Your task to perform on an android device: search for starred emails in the gmail app Image 0: 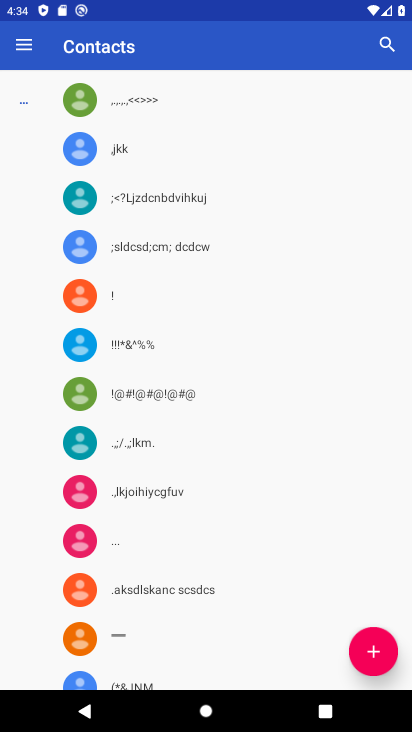
Step 0: drag from (221, 606) to (150, 229)
Your task to perform on an android device: search for starred emails in the gmail app Image 1: 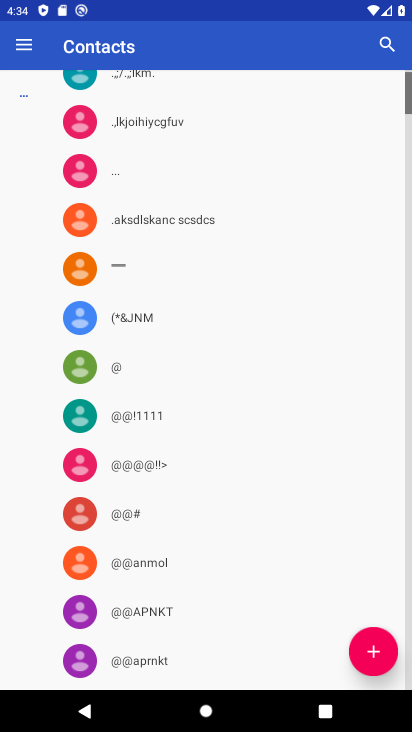
Step 1: press home button
Your task to perform on an android device: search for starred emails in the gmail app Image 2: 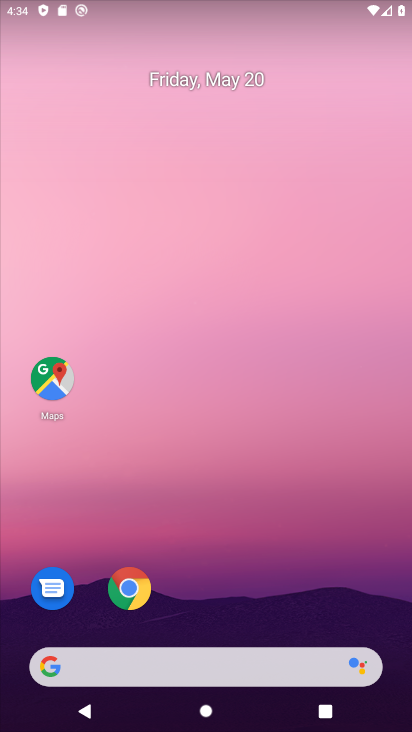
Step 2: drag from (216, 626) to (164, 164)
Your task to perform on an android device: search for starred emails in the gmail app Image 3: 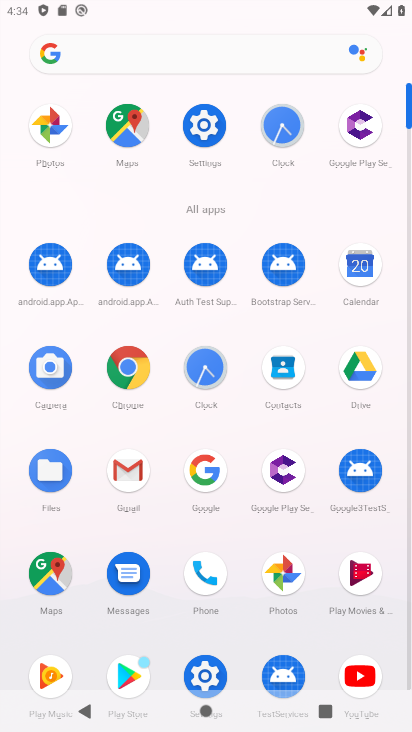
Step 3: click (365, 678)
Your task to perform on an android device: search for starred emails in the gmail app Image 4: 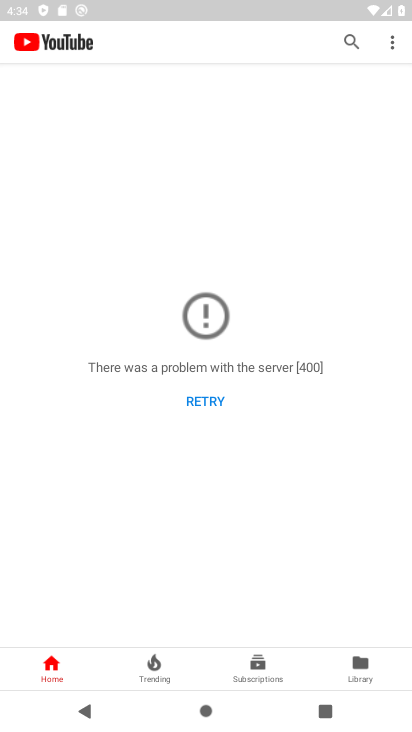
Step 4: press back button
Your task to perform on an android device: search for starred emails in the gmail app Image 5: 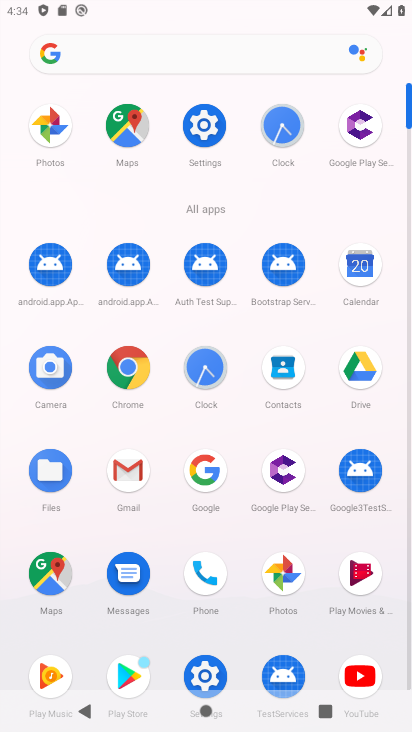
Step 5: press back button
Your task to perform on an android device: search for starred emails in the gmail app Image 6: 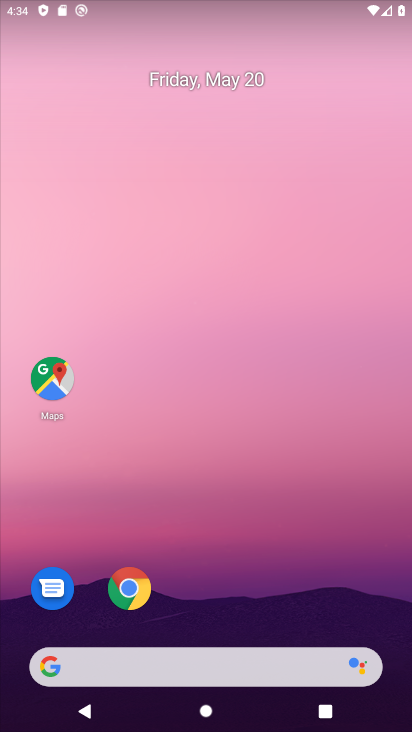
Step 6: drag from (207, 390) to (174, 121)
Your task to perform on an android device: search for starred emails in the gmail app Image 7: 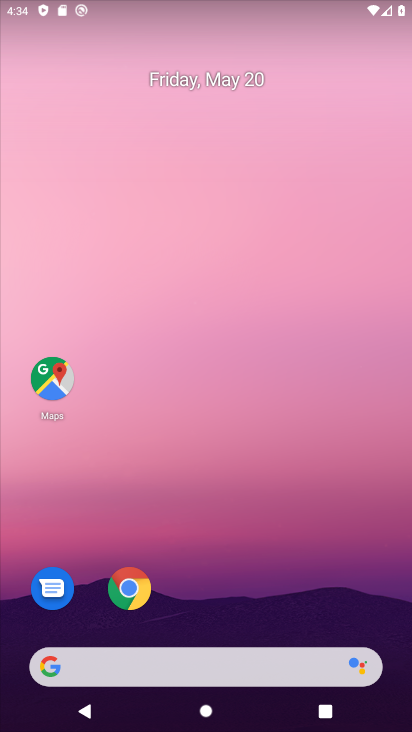
Step 7: drag from (213, 526) to (150, 36)
Your task to perform on an android device: search for starred emails in the gmail app Image 8: 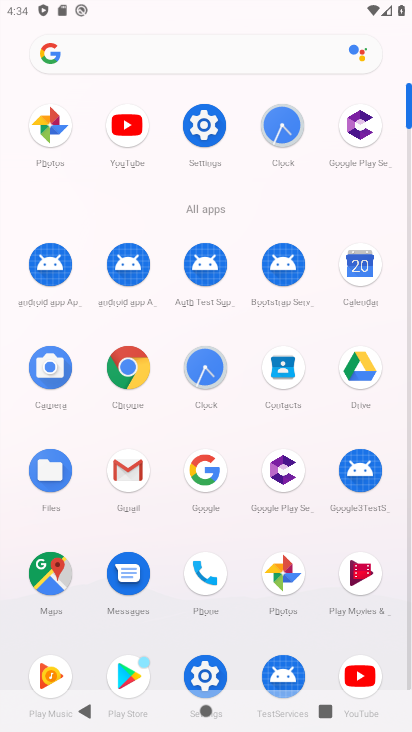
Step 8: click (117, 481)
Your task to perform on an android device: search for starred emails in the gmail app Image 9: 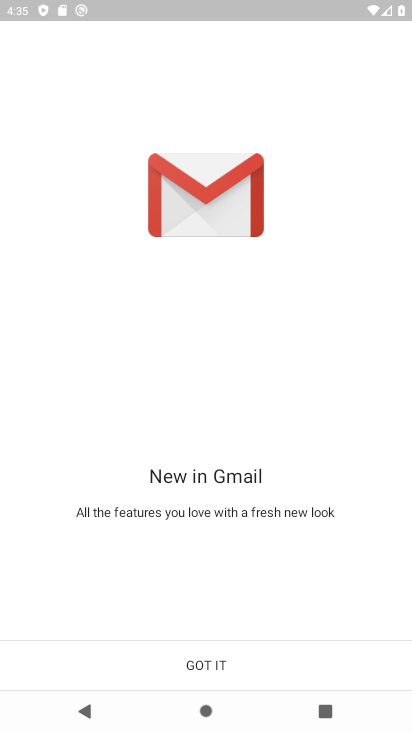
Step 9: click (194, 660)
Your task to perform on an android device: search for starred emails in the gmail app Image 10: 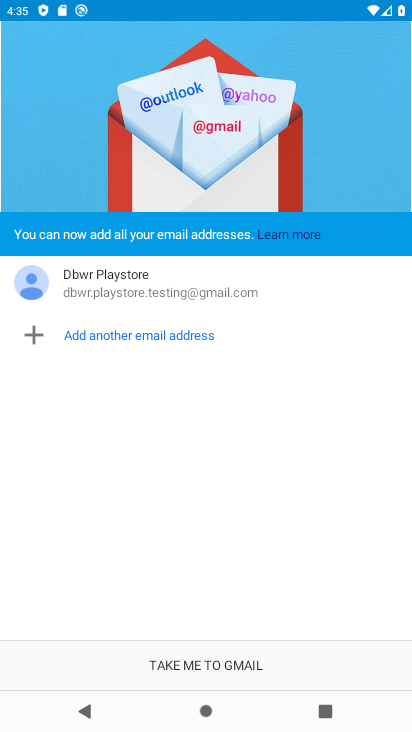
Step 10: click (194, 660)
Your task to perform on an android device: search for starred emails in the gmail app Image 11: 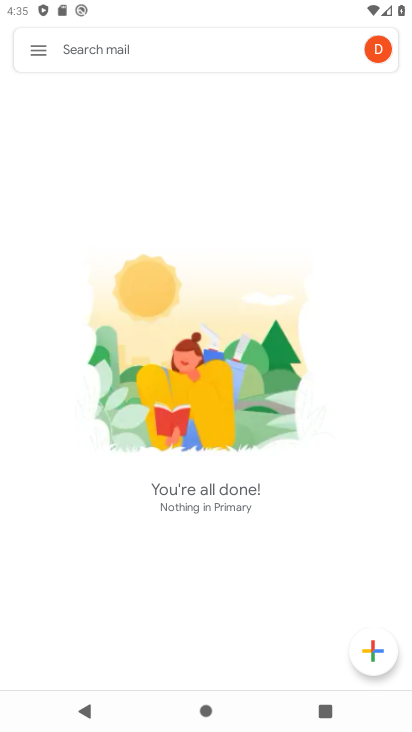
Step 11: click (32, 54)
Your task to perform on an android device: search for starred emails in the gmail app Image 12: 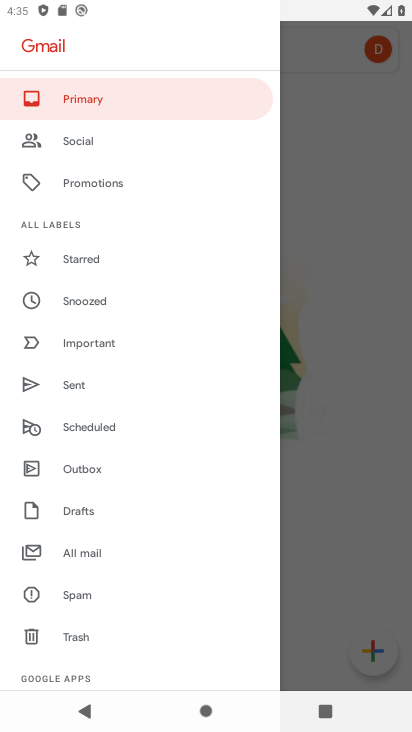
Step 12: click (93, 259)
Your task to perform on an android device: search for starred emails in the gmail app Image 13: 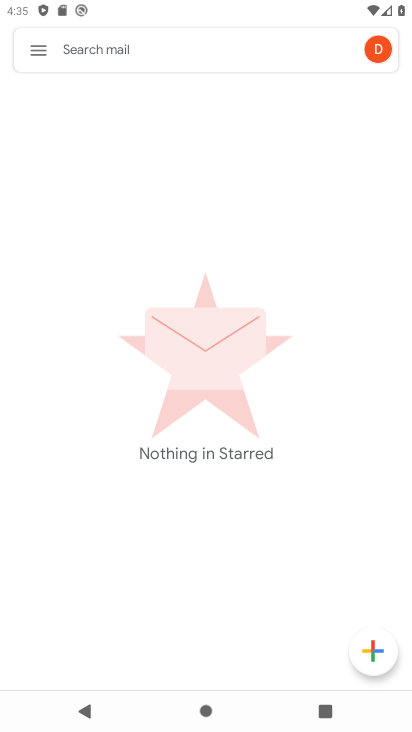
Step 13: task complete